Your task to perform on an android device: Clear the shopping cart on bestbuy.com. Search for "acer nitro" on bestbuy.com, select the first entry, and add it to the cart. Image 0: 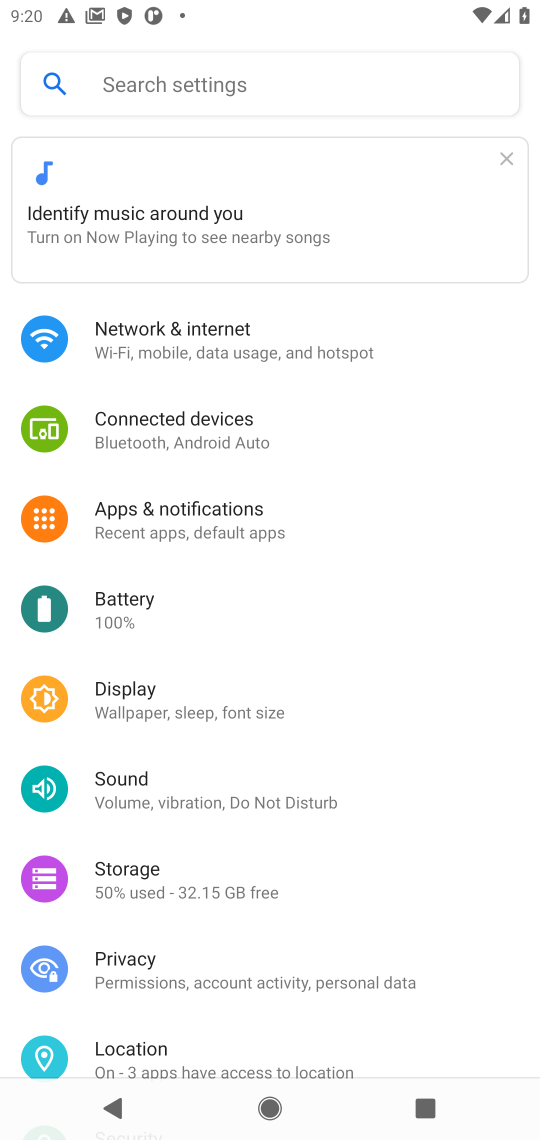
Step 0: press home button
Your task to perform on an android device: Clear the shopping cart on bestbuy.com. Search for "acer nitro" on bestbuy.com, select the first entry, and add it to the cart. Image 1: 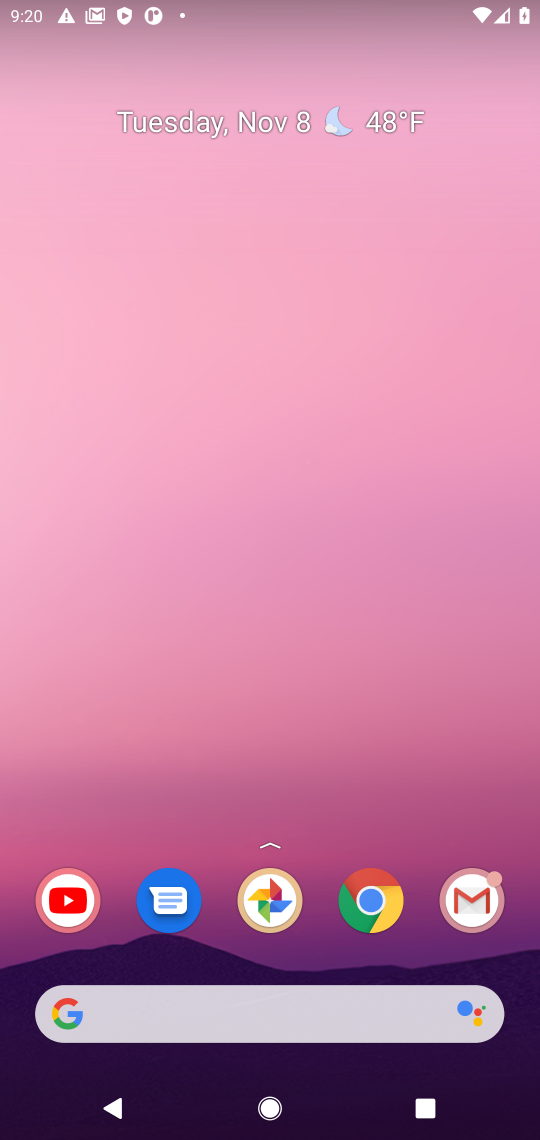
Step 1: click (391, 914)
Your task to perform on an android device: Clear the shopping cart on bestbuy.com. Search for "acer nitro" on bestbuy.com, select the first entry, and add it to the cart. Image 2: 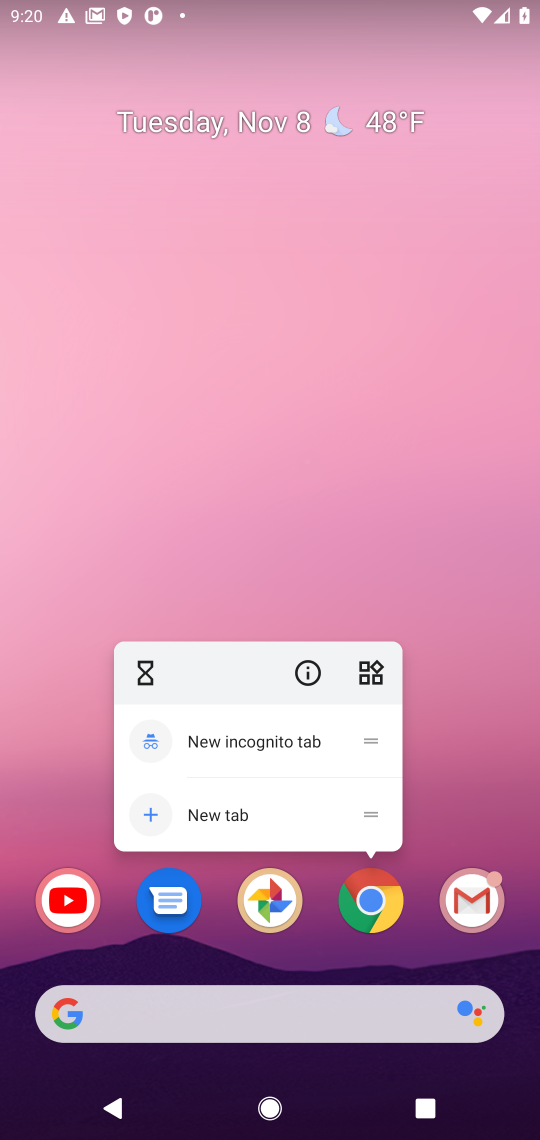
Step 2: click (389, 913)
Your task to perform on an android device: Clear the shopping cart on bestbuy.com. Search for "acer nitro" on bestbuy.com, select the first entry, and add it to the cart. Image 3: 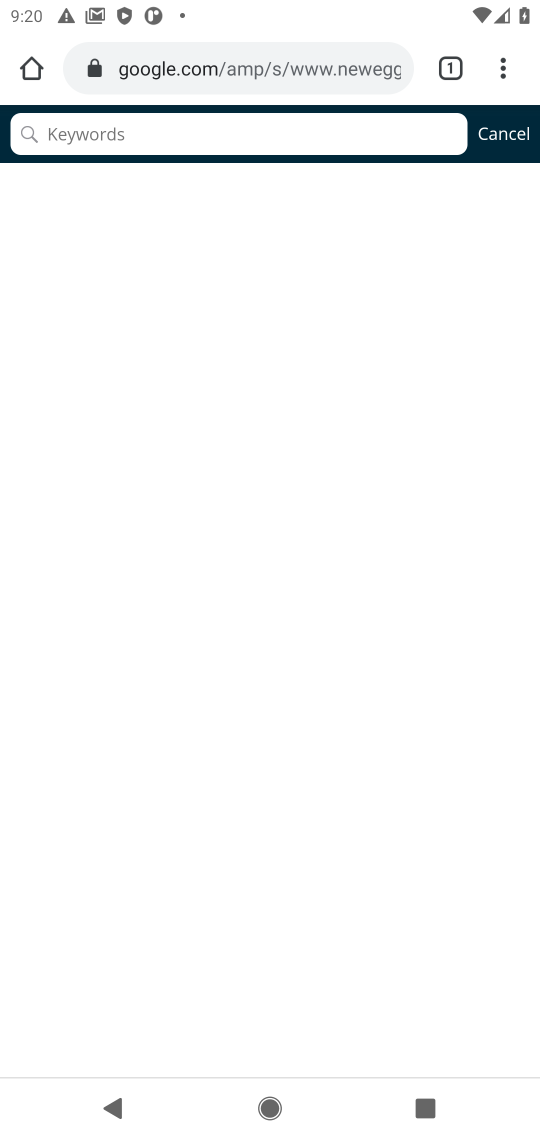
Step 3: click (187, 70)
Your task to perform on an android device: Clear the shopping cart on bestbuy.com. Search for "acer nitro" on bestbuy.com, select the first entry, and add it to the cart. Image 4: 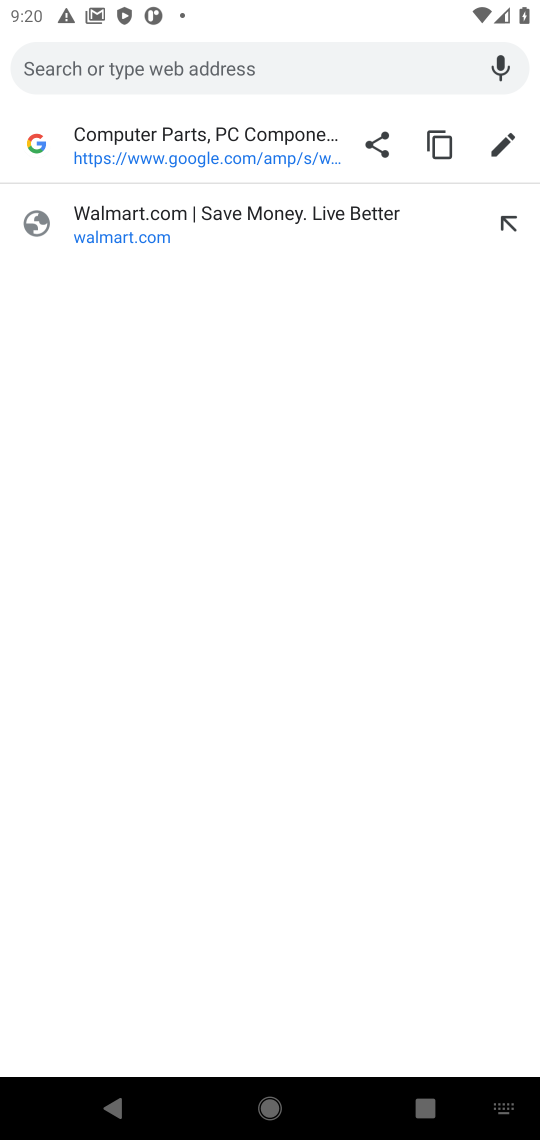
Step 4: type "bestbuy"
Your task to perform on an android device: Clear the shopping cart on bestbuy.com. Search for "acer nitro" on bestbuy.com, select the first entry, and add it to the cart. Image 5: 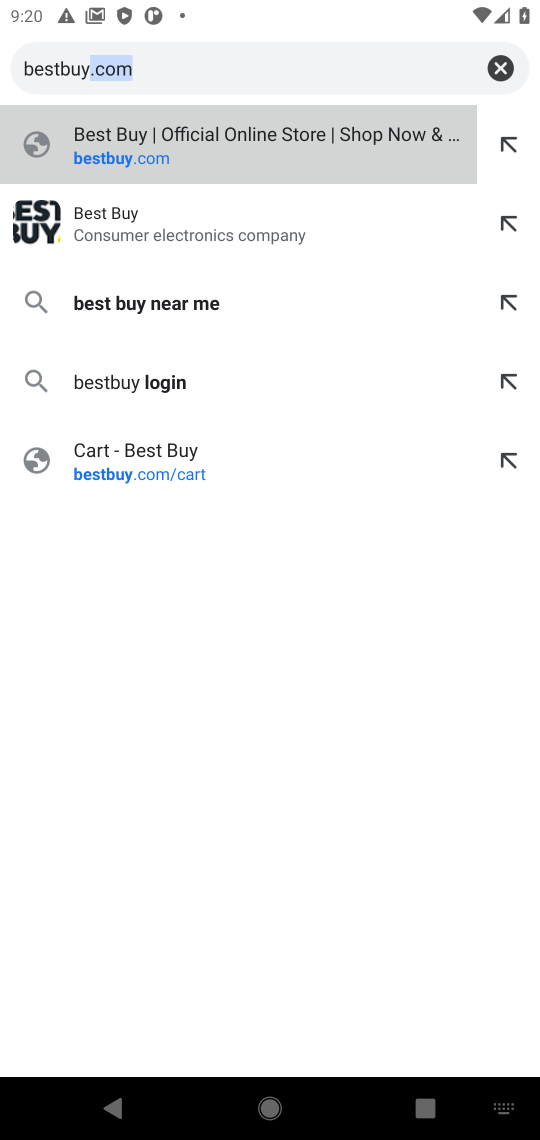
Step 5: type ""
Your task to perform on an android device: Clear the shopping cart on bestbuy.com. Search for "acer nitro" on bestbuy.com, select the first entry, and add it to the cart. Image 6: 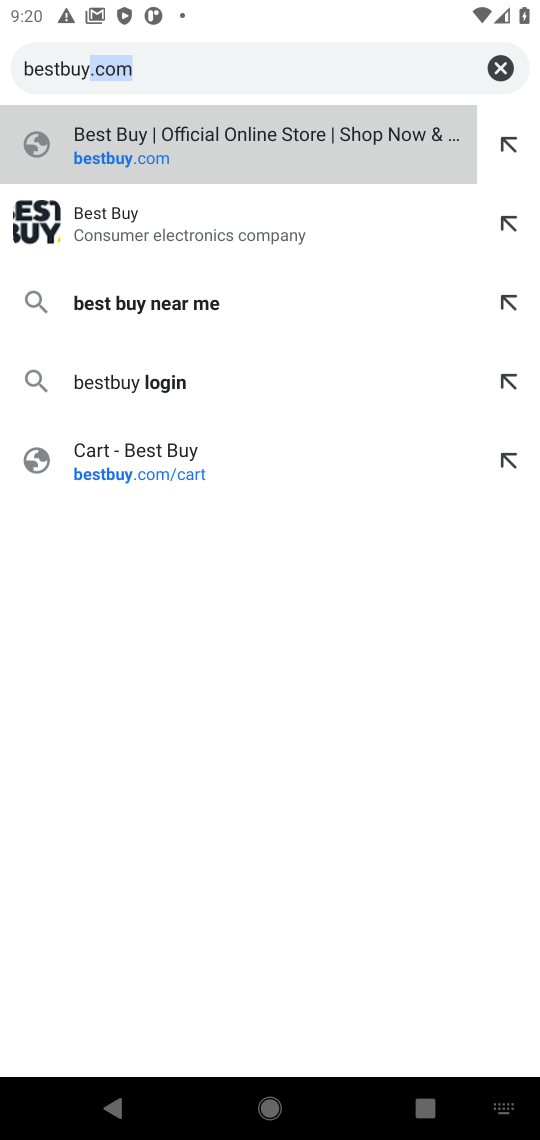
Step 6: click (156, 230)
Your task to perform on an android device: Clear the shopping cart on bestbuy.com. Search for "acer nitro" on bestbuy.com, select the first entry, and add it to the cart. Image 7: 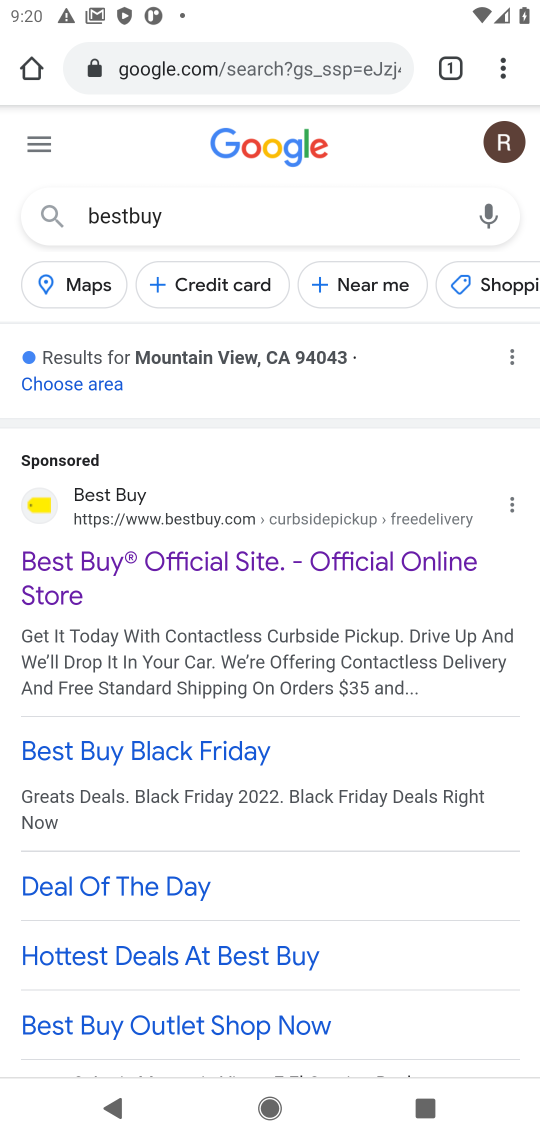
Step 7: drag from (182, 889) to (208, 131)
Your task to perform on an android device: Clear the shopping cart on bestbuy.com. Search for "acer nitro" on bestbuy.com, select the first entry, and add it to the cart. Image 8: 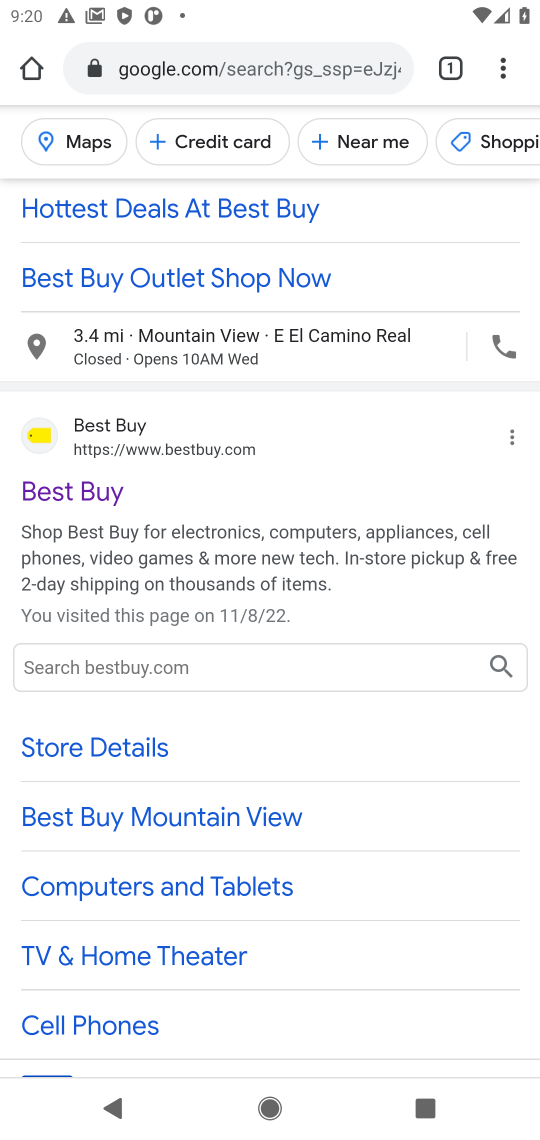
Step 8: click (87, 498)
Your task to perform on an android device: Clear the shopping cart on bestbuy.com. Search for "acer nitro" on bestbuy.com, select the first entry, and add it to the cart. Image 9: 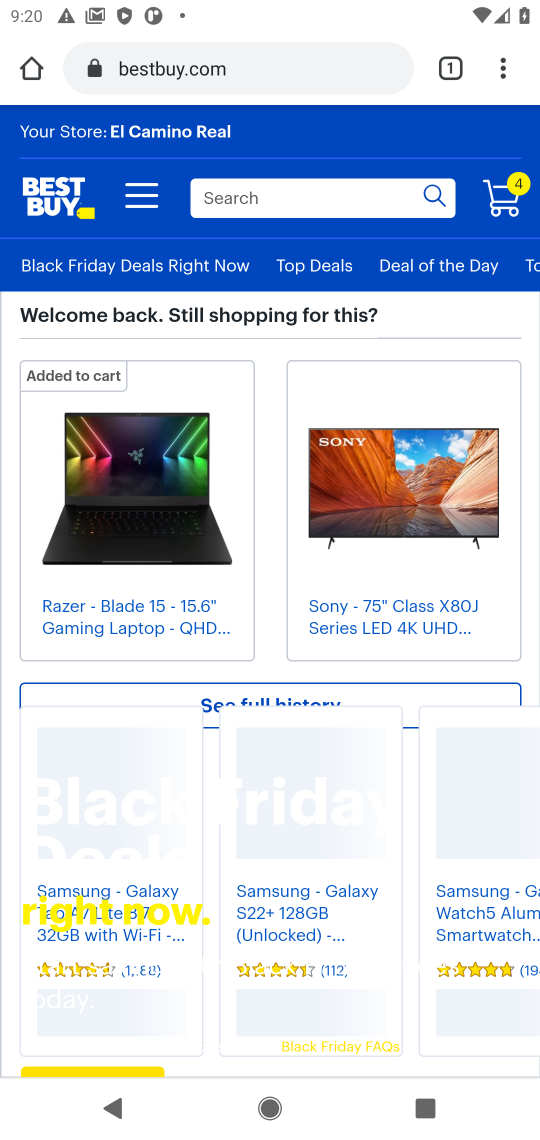
Step 9: click (258, 195)
Your task to perform on an android device: Clear the shopping cart on bestbuy.com. Search for "acer nitro" on bestbuy.com, select the first entry, and add it to the cart. Image 10: 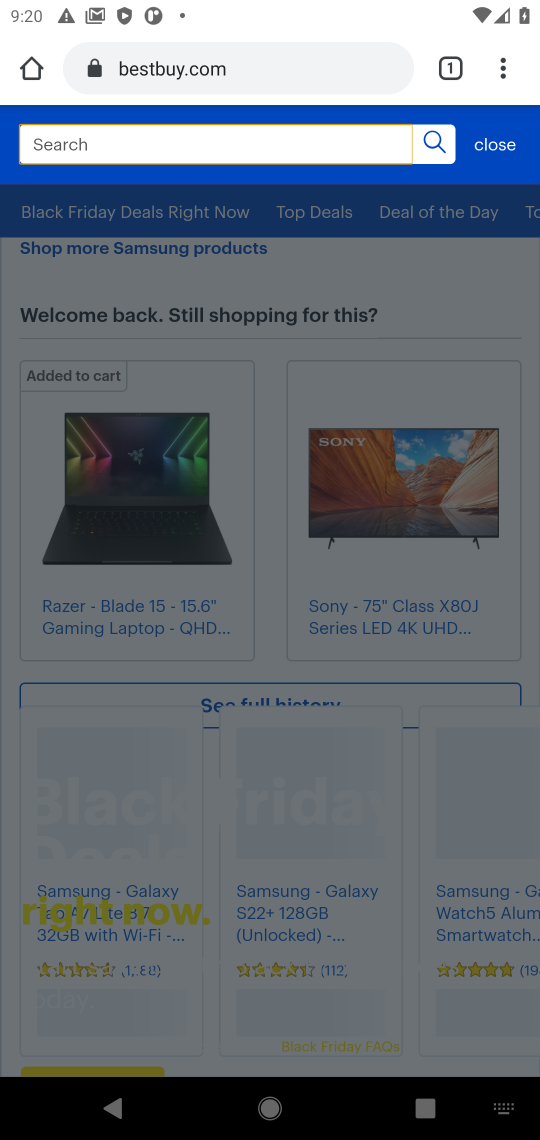
Step 10: type "acer nitro"
Your task to perform on an android device: Clear the shopping cart on bestbuy.com. Search for "acer nitro" on bestbuy.com, select the first entry, and add it to the cart. Image 11: 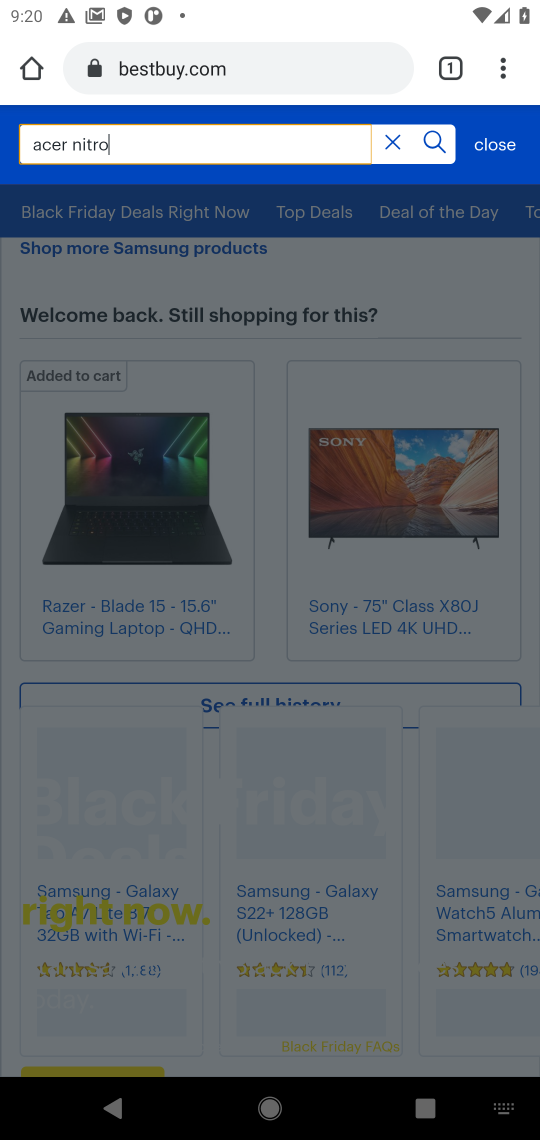
Step 11: type ""
Your task to perform on an android device: Clear the shopping cart on bestbuy.com. Search for "acer nitro" on bestbuy.com, select the first entry, and add it to the cart. Image 12: 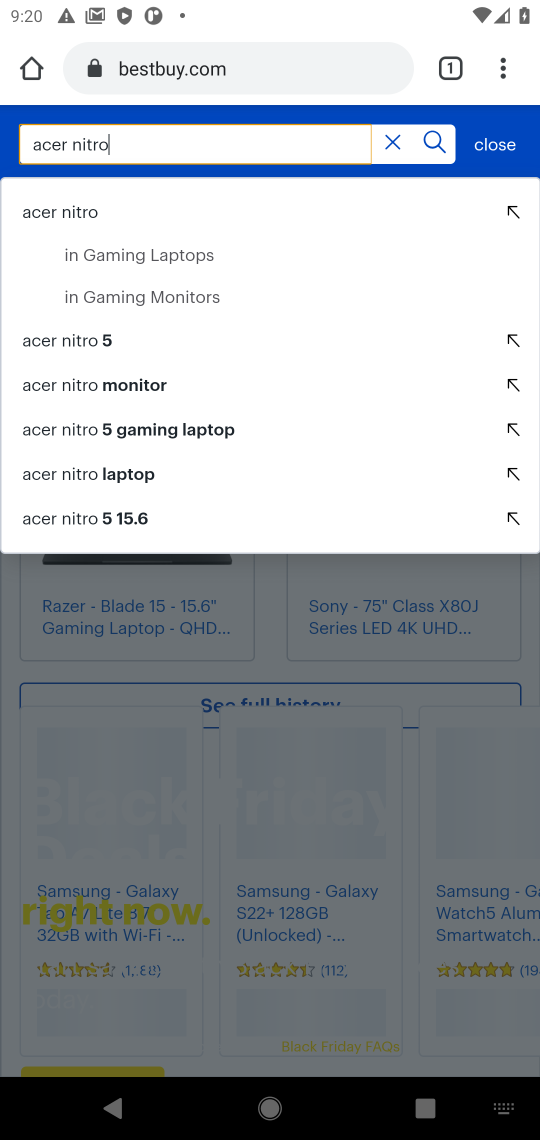
Step 12: click (78, 344)
Your task to perform on an android device: Clear the shopping cart on bestbuy.com. Search for "acer nitro" on bestbuy.com, select the first entry, and add it to the cart. Image 13: 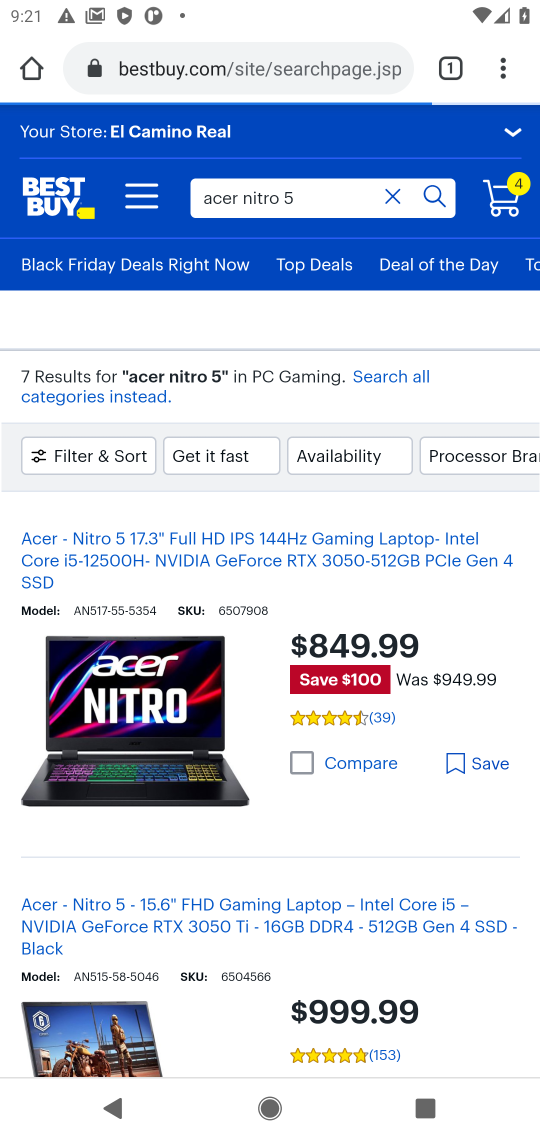
Step 13: click (80, 905)
Your task to perform on an android device: Clear the shopping cart on bestbuy.com. Search for "acer nitro" on bestbuy.com, select the first entry, and add it to the cart. Image 14: 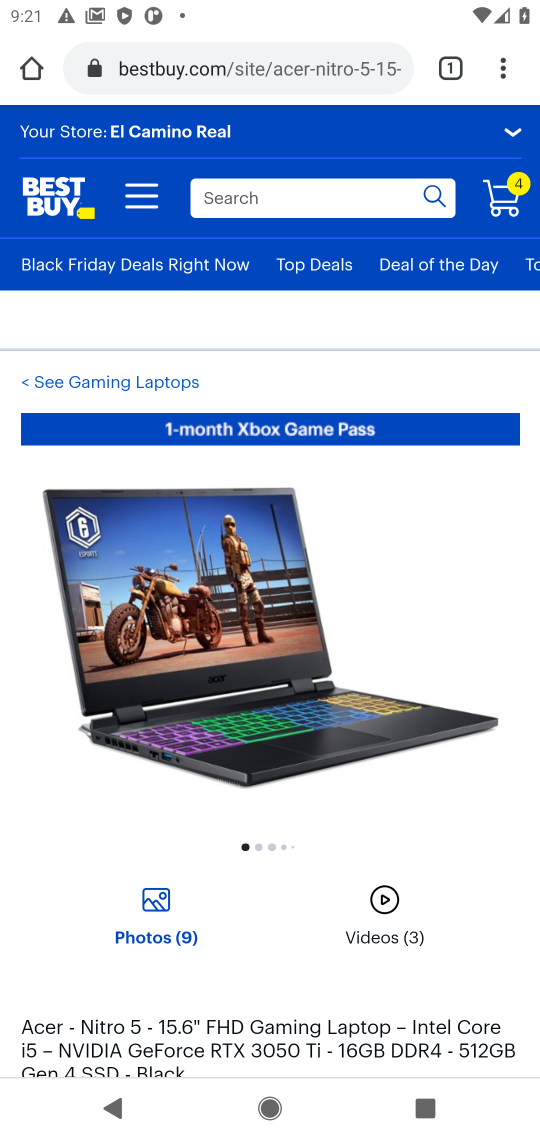
Step 14: drag from (481, 846) to (310, 112)
Your task to perform on an android device: Clear the shopping cart on bestbuy.com. Search for "acer nitro" on bestbuy.com, select the first entry, and add it to the cart. Image 15: 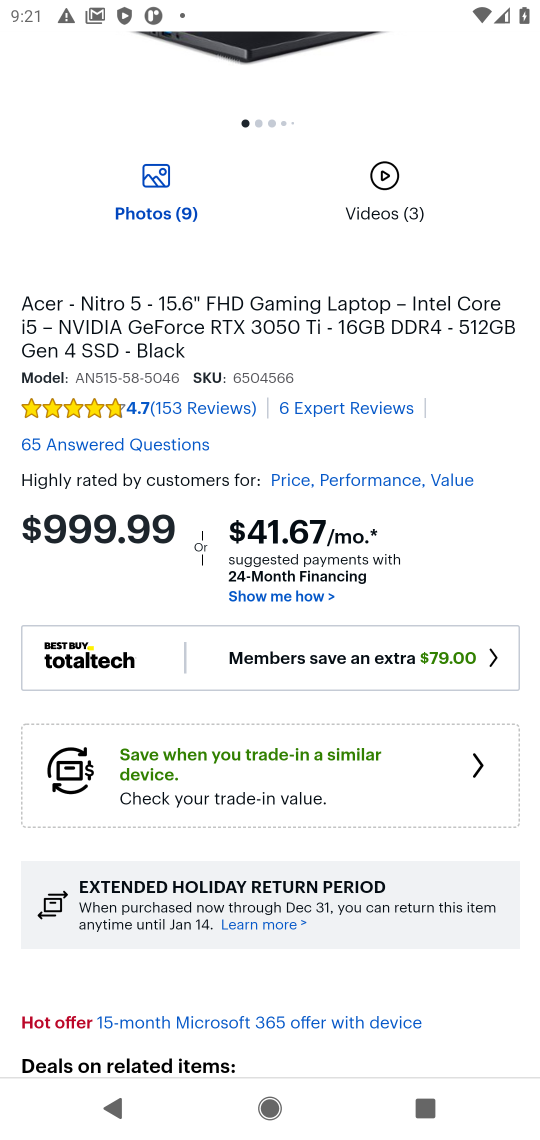
Step 15: drag from (254, 991) to (281, 415)
Your task to perform on an android device: Clear the shopping cart on bestbuy.com. Search for "acer nitro" on bestbuy.com, select the first entry, and add it to the cart. Image 16: 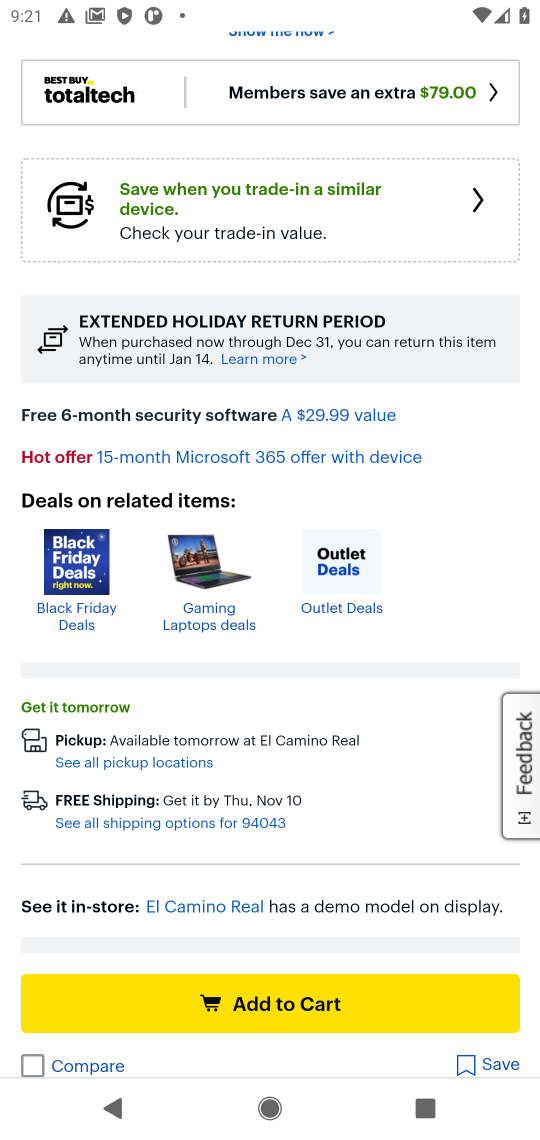
Step 16: click (277, 1007)
Your task to perform on an android device: Clear the shopping cart on bestbuy.com. Search for "acer nitro" on bestbuy.com, select the first entry, and add it to the cart. Image 17: 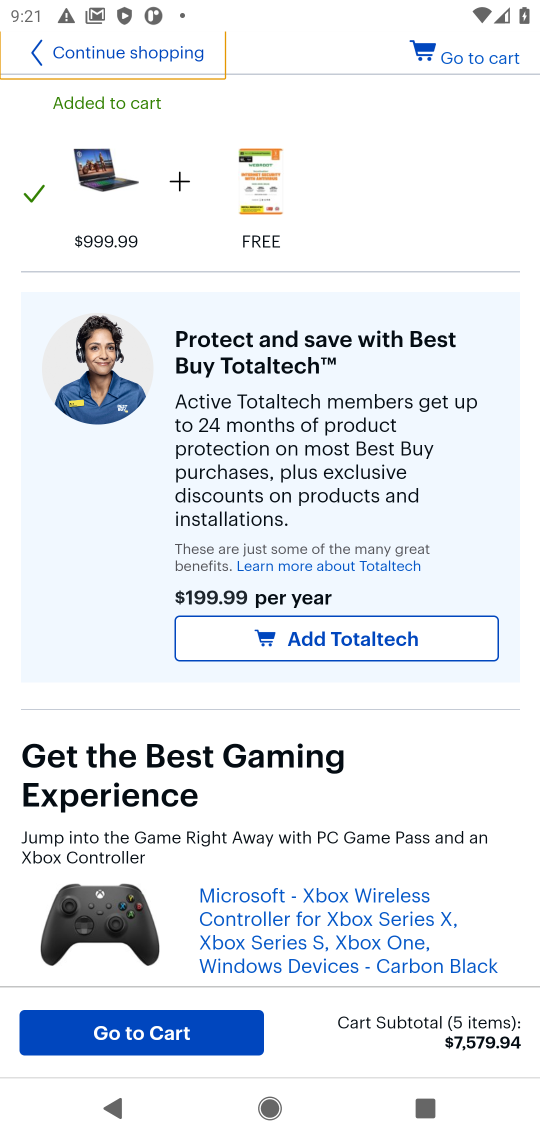
Step 17: task complete